Your task to perform on an android device: Show me productivity apps on the Play Store Image 0: 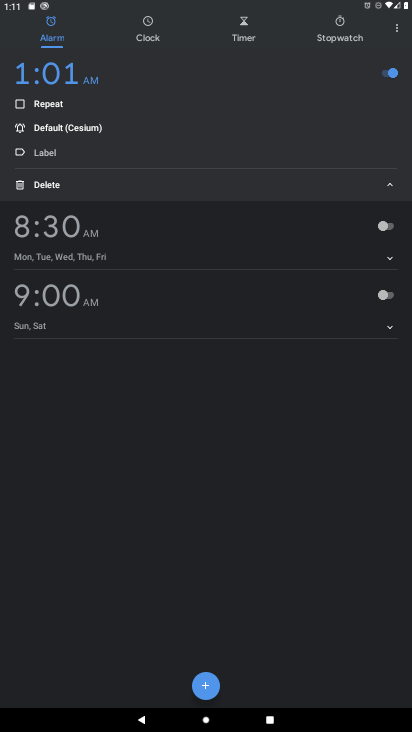
Step 0: press home button
Your task to perform on an android device: Show me productivity apps on the Play Store Image 1: 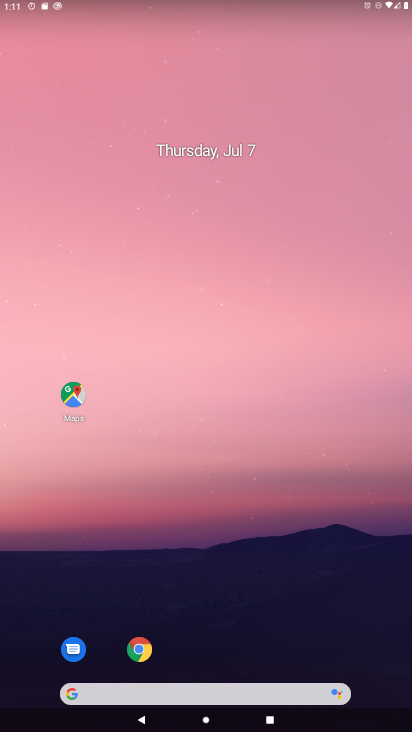
Step 1: drag from (202, 642) to (0, 29)
Your task to perform on an android device: Show me productivity apps on the Play Store Image 2: 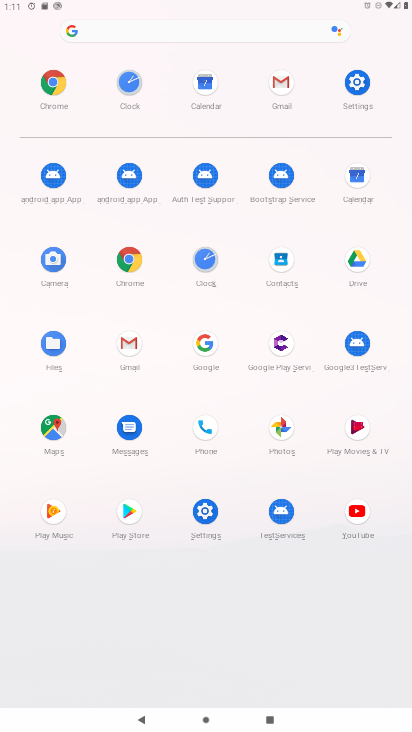
Step 2: click (122, 490)
Your task to perform on an android device: Show me productivity apps on the Play Store Image 3: 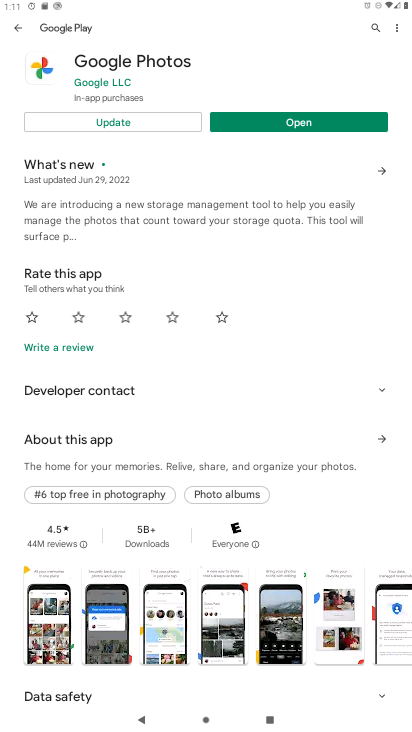
Step 3: click (21, 31)
Your task to perform on an android device: Show me productivity apps on the Play Store Image 4: 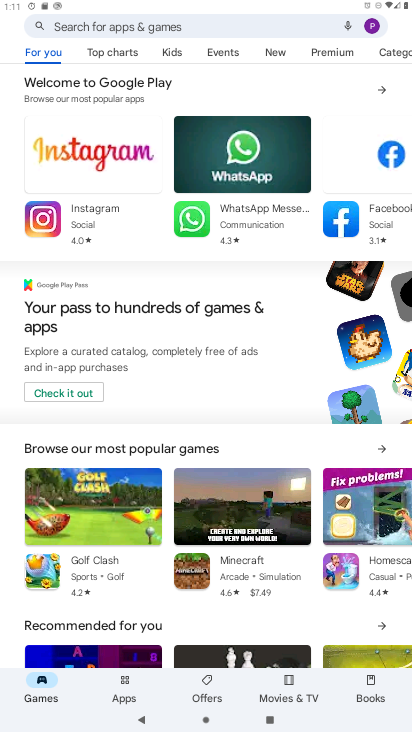
Step 4: click (119, 684)
Your task to perform on an android device: Show me productivity apps on the Play Store Image 5: 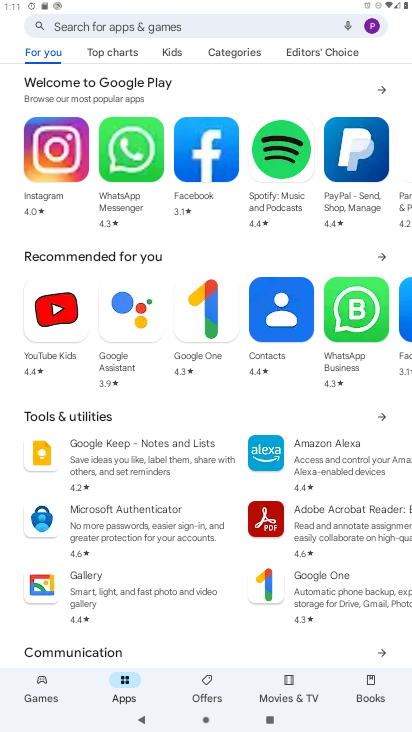
Step 5: click (228, 52)
Your task to perform on an android device: Show me productivity apps on the Play Store Image 6: 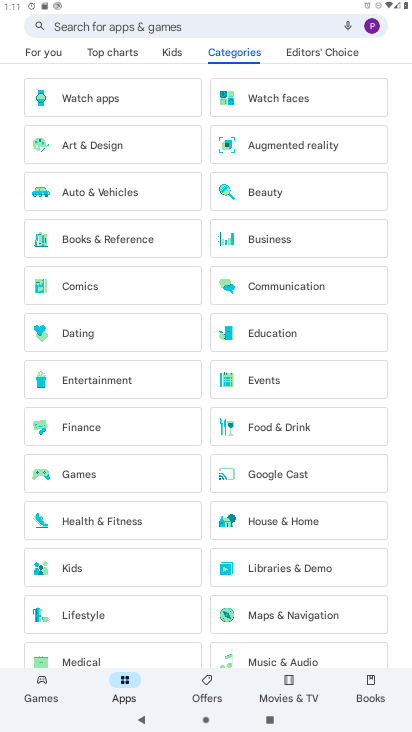
Step 6: drag from (205, 577) to (204, 322)
Your task to perform on an android device: Show me productivity apps on the Play Store Image 7: 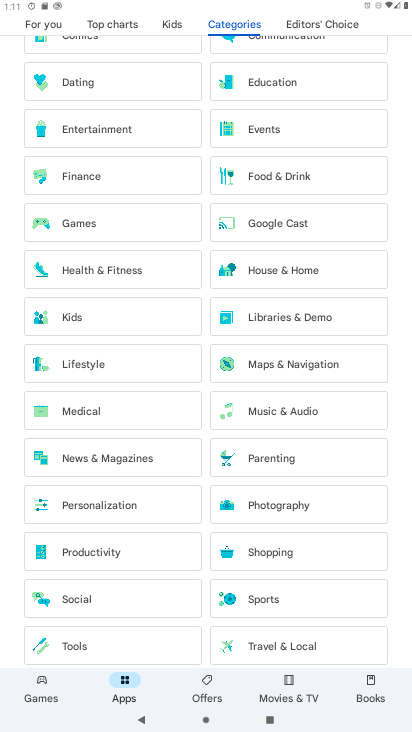
Step 7: click (99, 535)
Your task to perform on an android device: Show me productivity apps on the Play Store Image 8: 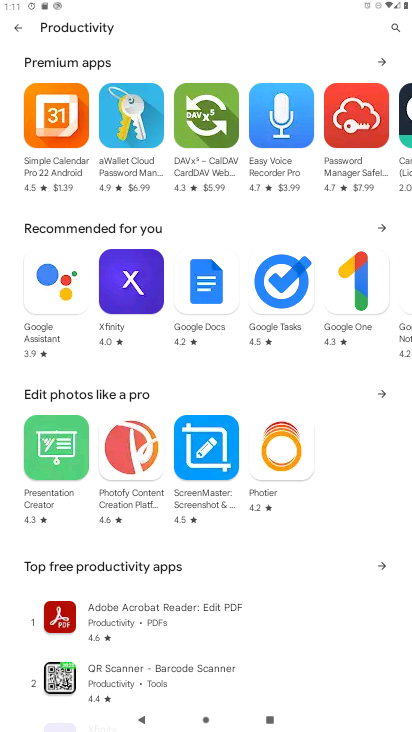
Step 8: task complete